Your task to perform on an android device: Go to battery settings Image 0: 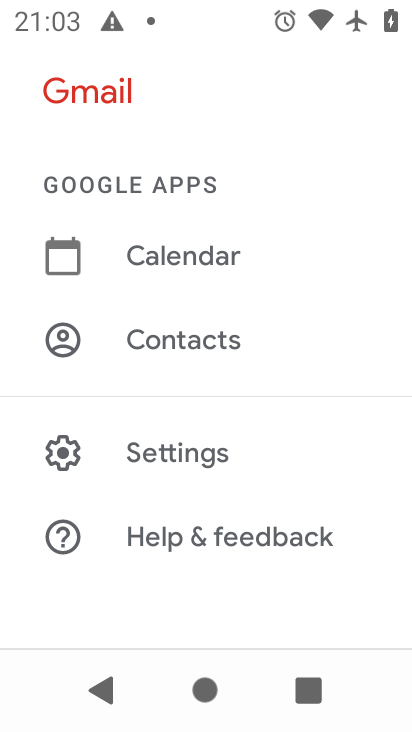
Step 0: press home button
Your task to perform on an android device: Go to battery settings Image 1: 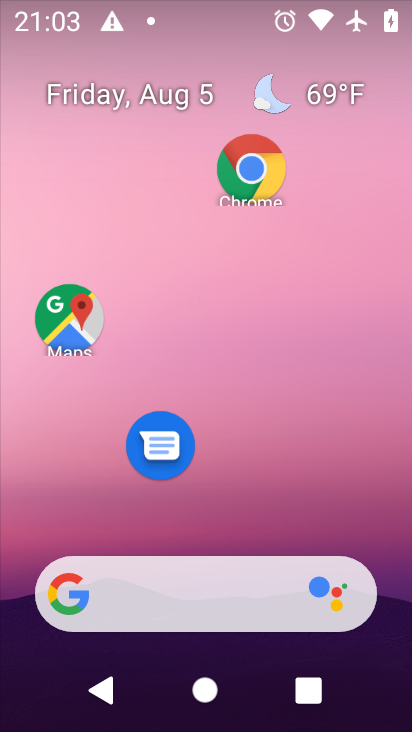
Step 1: drag from (195, 517) to (199, 110)
Your task to perform on an android device: Go to battery settings Image 2: 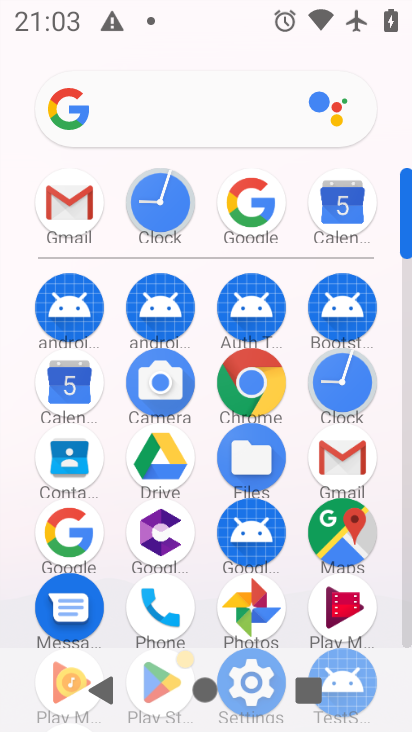
Step 2: drag from (200, 591) to (218, 225)
Your task to perform on an android device: Go to battery settings Image 3: 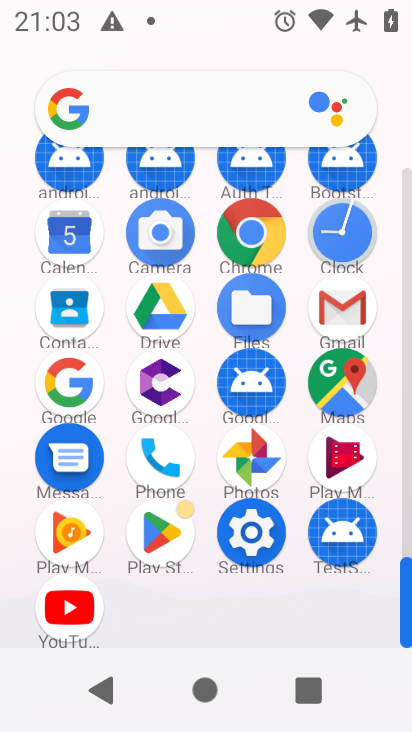
Step 3: click (232, 513)
Your task to perform on an android device: Go to battery settings Image 4: 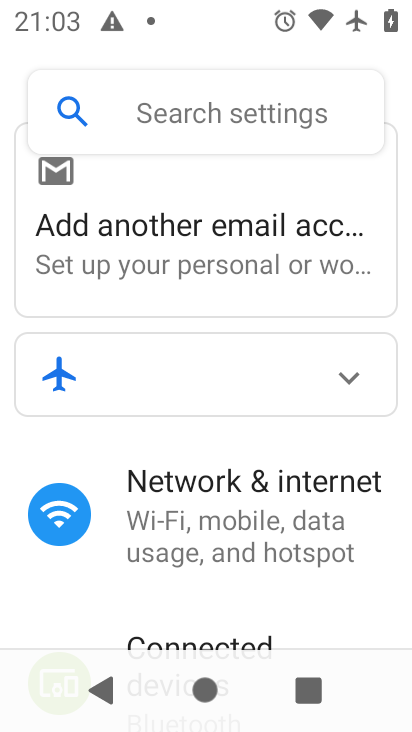
Step 4: drag from (228, 567) to (218, 223)
Your task to perform on an android device: Go to battery settings Image 5: 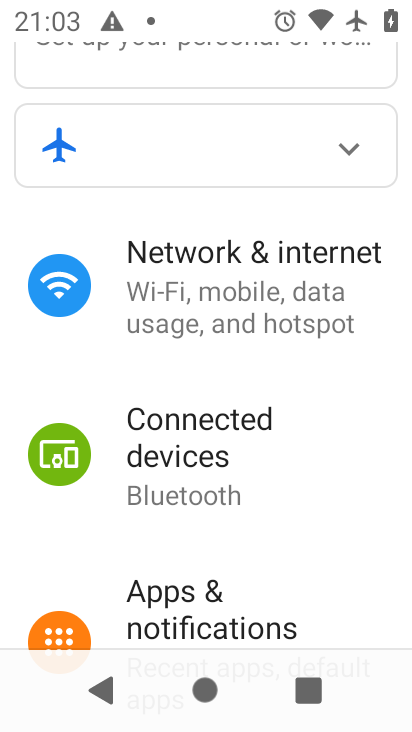
Step 5: drag from (233, 547) to (242, 171)
Your task to perform on an android device: Go to battery settings Image 6: 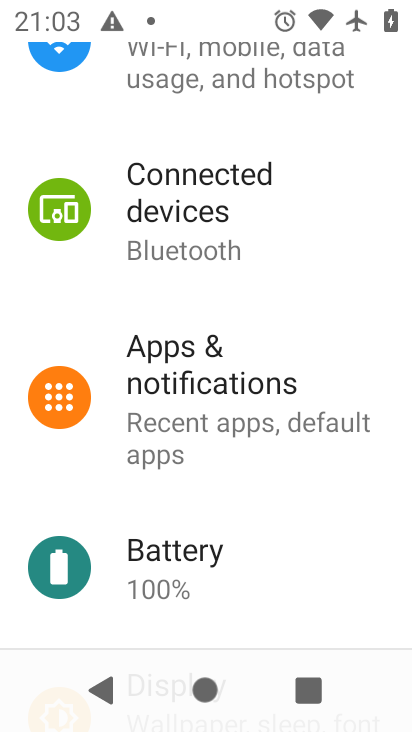
Step 6: drag from (213, 541) to (220, 274)
Your task to perform on an android device: Go to battery settings Image 7: 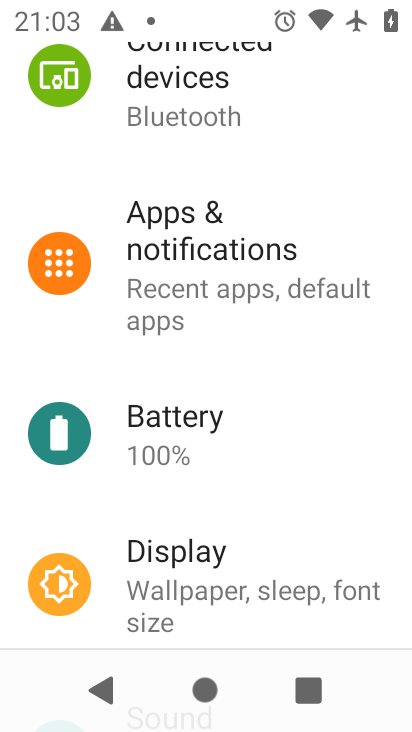
Step 7: click (204, 437)
Your task to perform on an android device: Go to battery settings Image 8: 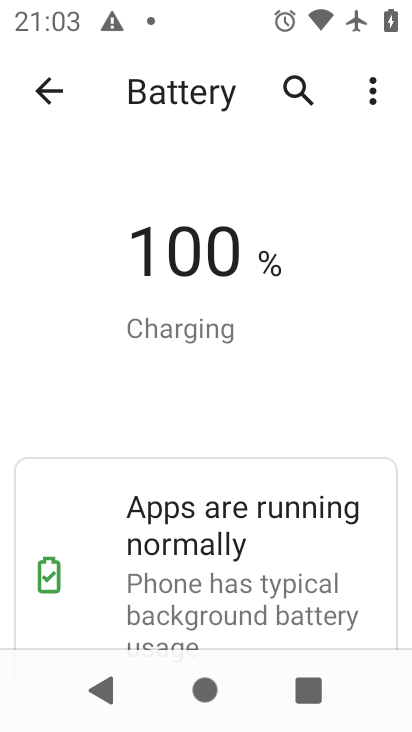
Step 8: task complete